Your task to perform on an android device: Open maps Image 0: 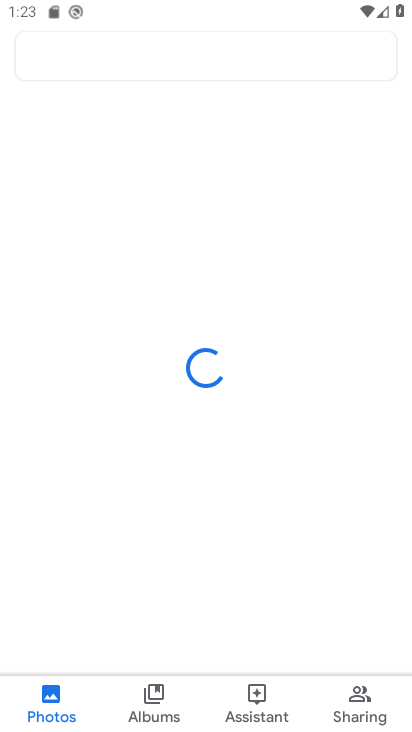
Step 0: press back button
Your task to perform on an android device: Open maps Image 1: 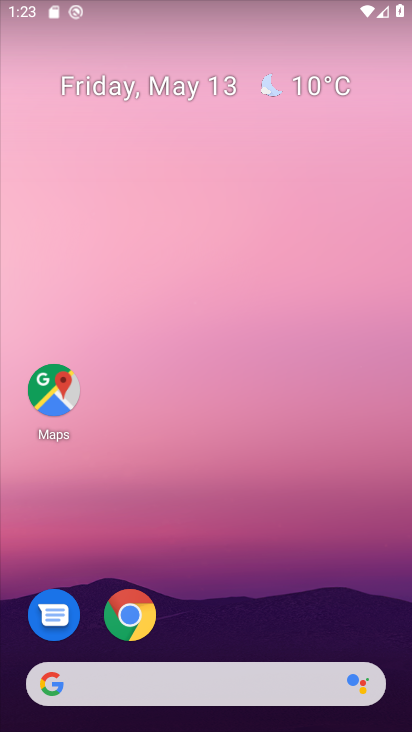
Step 1: click (44, 381)
Your task to perform on an android device: Open maps Image 2: 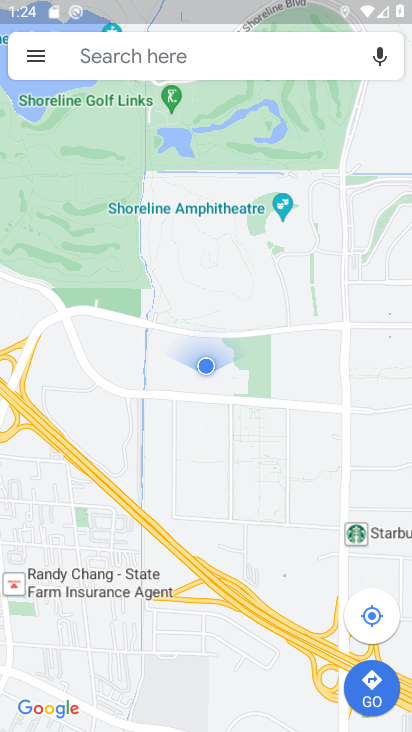
Step 2: task complete